Your task to perform on an android device: clear history in the chrome app Image 0: 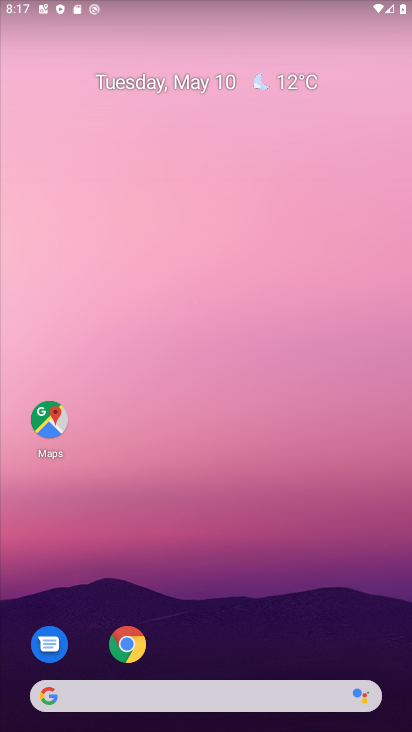
Step 0: click (122, 645)
Your task to perform on an android device: clear history in the chrome app Image 1: 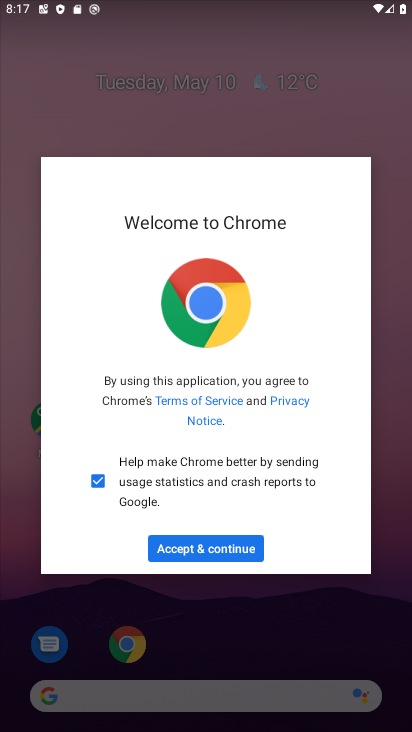
Step 1: click (209, 543)
Your task to perform on an android device: clear history in the chrome app Image 2: 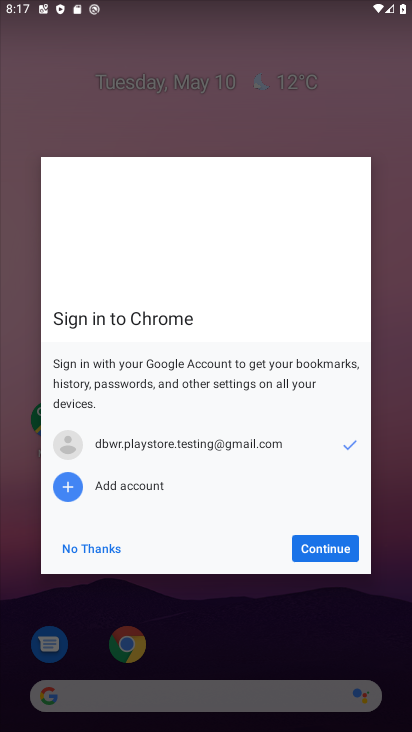
Step 2: click (319, 551)
Your task to perform on an android device: clear history in the chrome app Image 3: 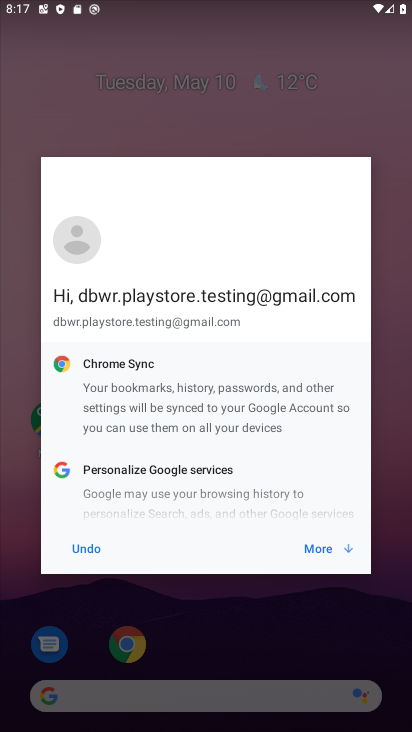
Step 3: click (319, 551)
Your task to perform on an android device: clear history in the chrome app Image 4: 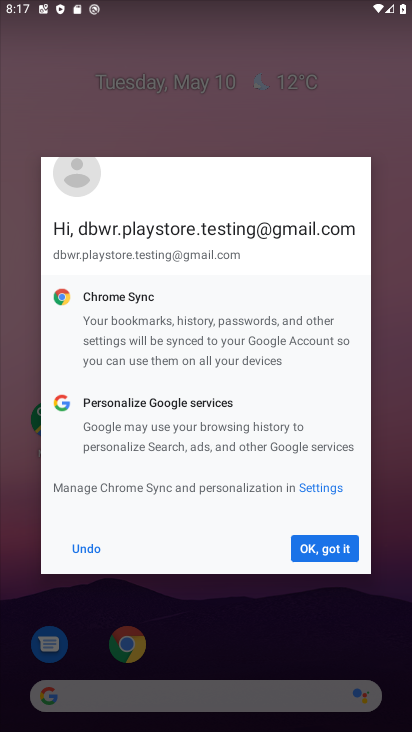
Step 4: click (319, 551)
Your task to perform on an android device: clear history in the chrome app Image 5: 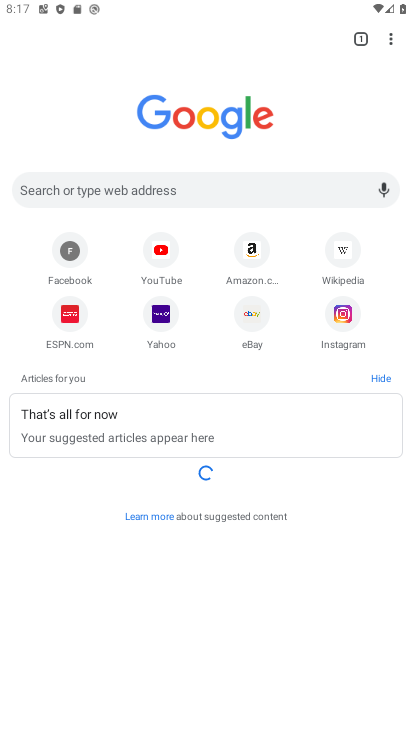
Step 5: click (391, 39)
Your task to perform on an android device: clear history in the chrome app Image 6: 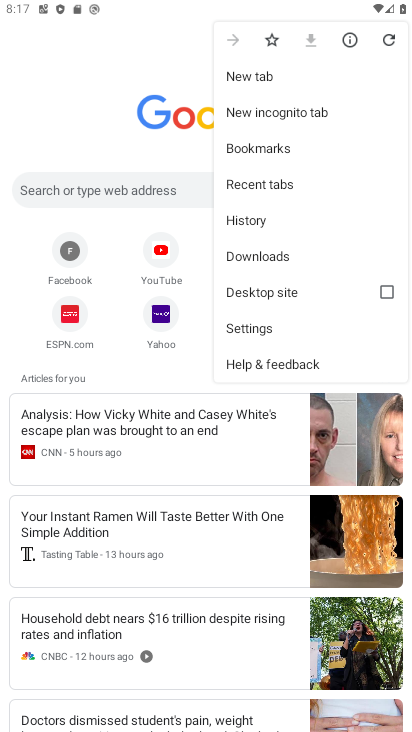
Step 6: click (249, 222)
Your task to perform on an android device: clear history in the chrome app Image 7: 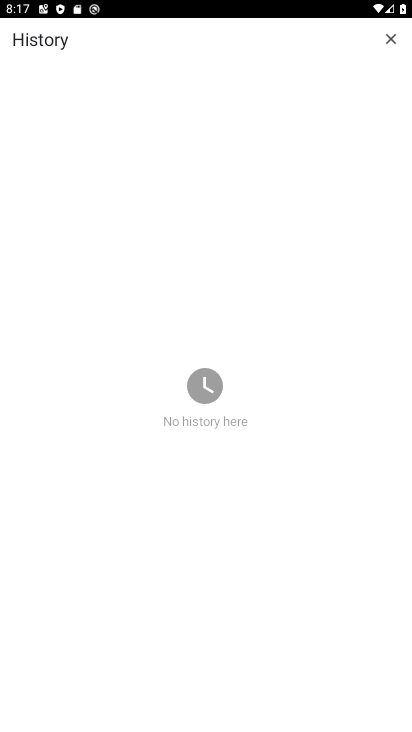
Step 7: task complete